Your task to perform on an android device: What's the weather? Image 0: 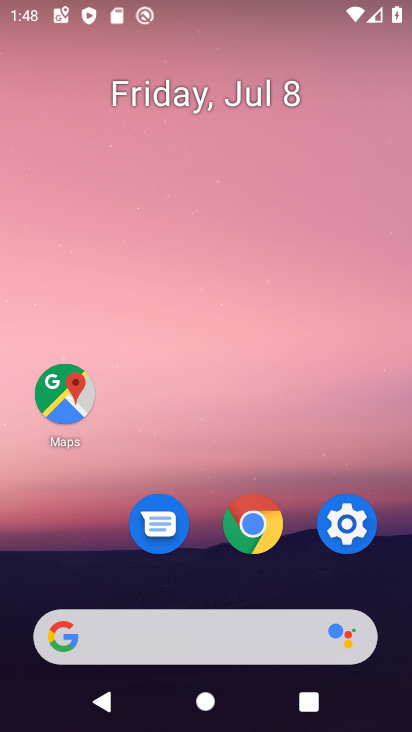
Step 0: click (191, 653)
Your task to perform on an android device: What's the weather? Image 1: 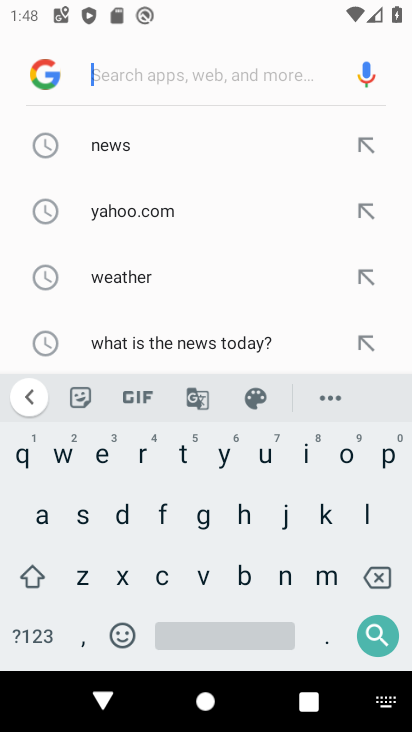
Step 1: click (146, 277)
Your task to perform on an android device: What's the weather? Image 2: 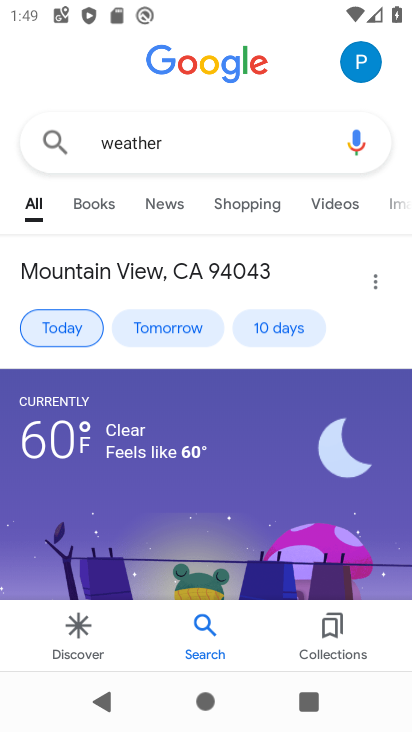
Step 2: task complete